Your task to perform on an android device: What's the weather going to be this weekend? Image 0: 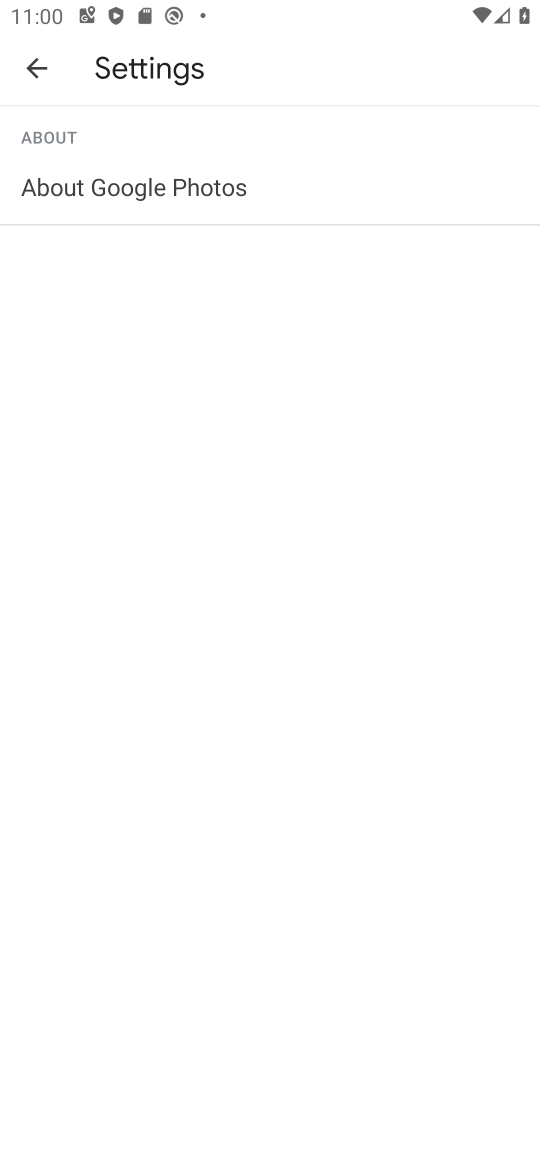
Step 0: press home button
Your task to perform on an android device: What's the weather going to be this weekend? Image 1: 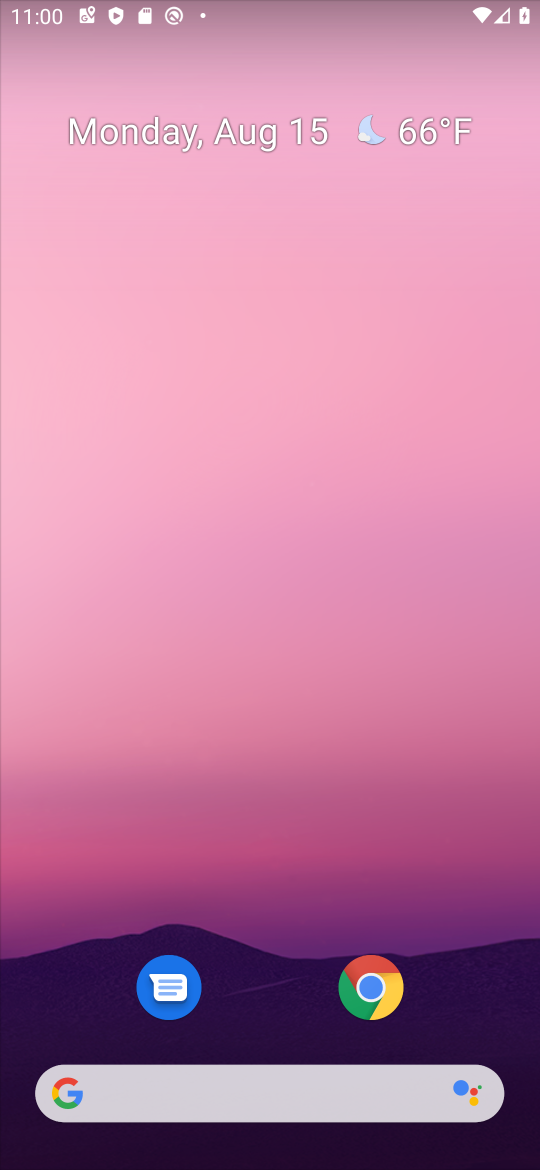
Step 1: drag from (264, 1069) to (236, 185)
Your task to perform on an android device: What's the weather going to be this weekend? Image 2: 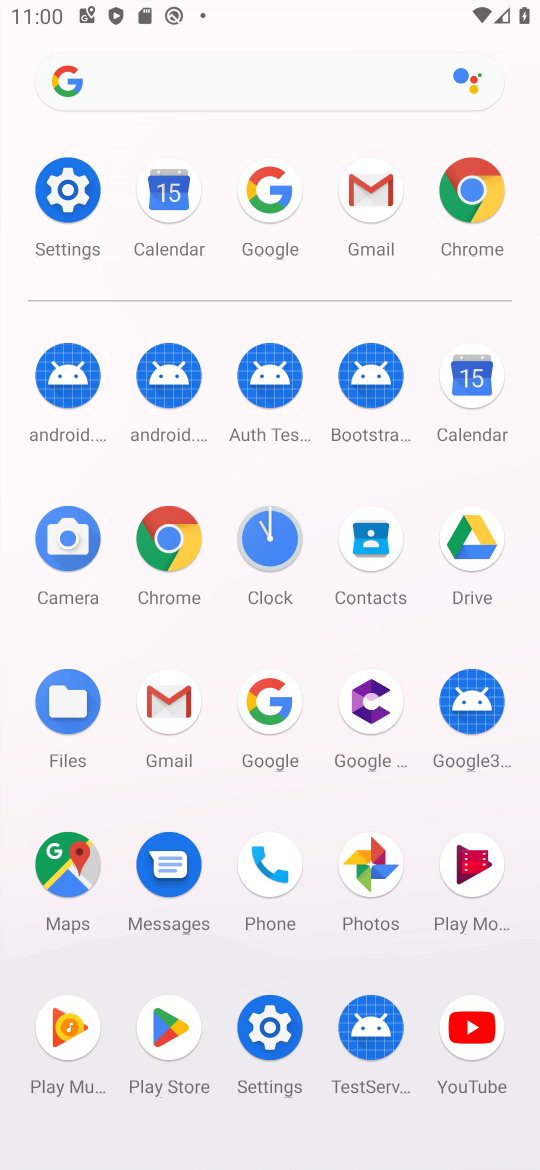
Step 2: click (281, 711)
Your task to perform on an android device: What's the weather going to be this weekend? Image 3: 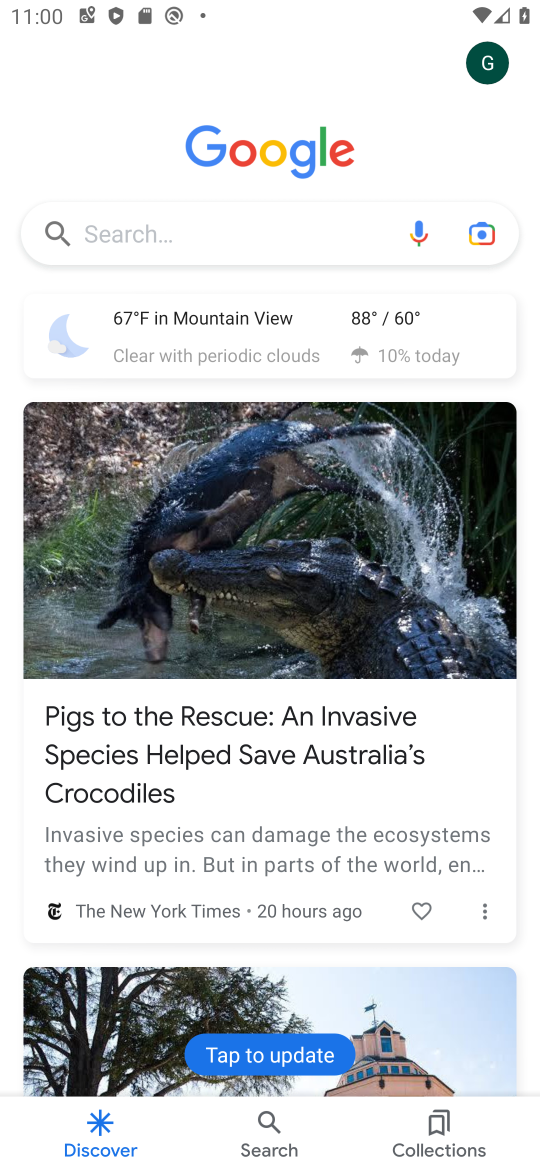
Step 3: click (280, 219)
Your task to perform on an android device: What's the weather going to be this weekend? Image 4: 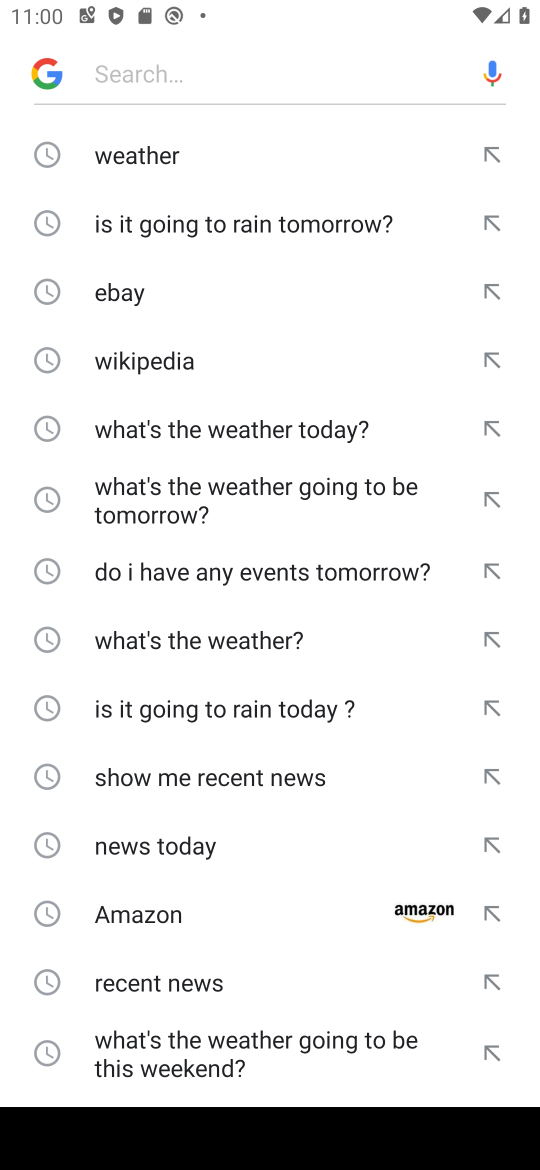
Step 4: click (84, 147)
Your task to perform on an android device: What's the weather going to be this weekend? Image 5: 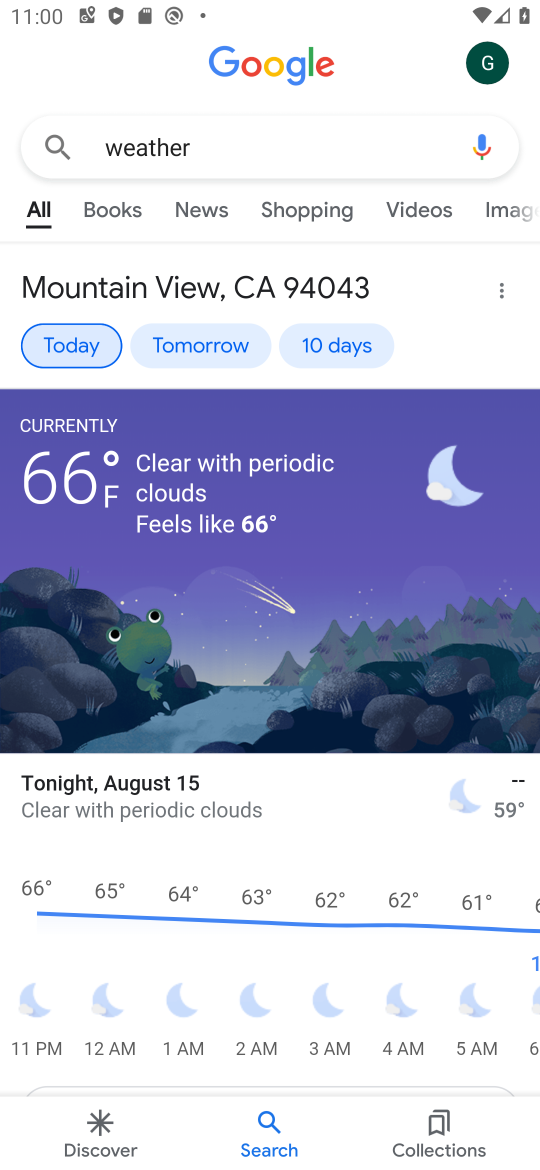
Step 5: click (350, 356)
Your task to perform on an android device: What's the weather going to be this weekend? Image 6: 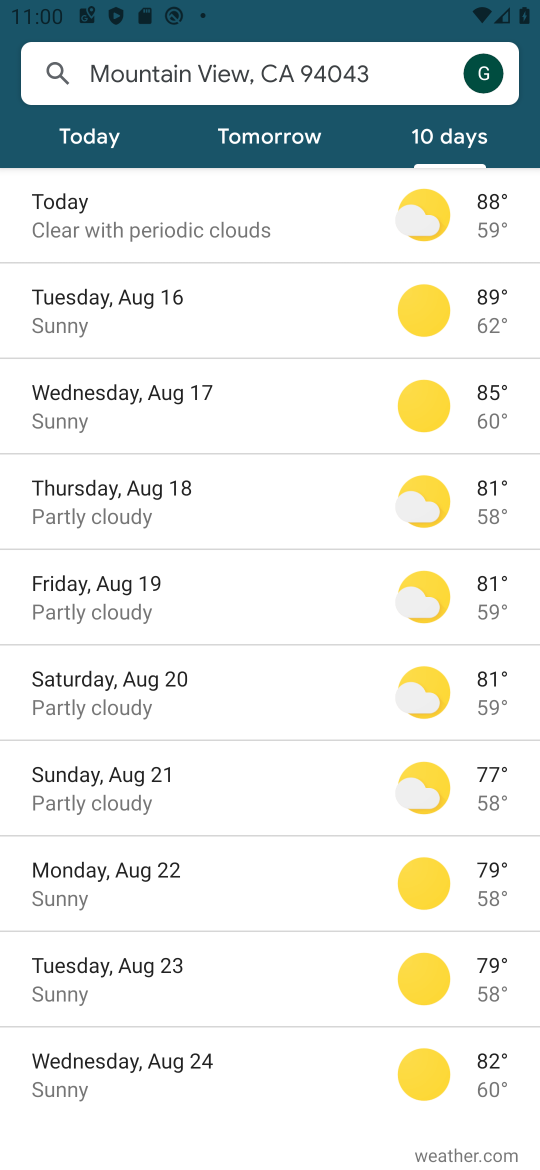
Step 6: task complete